Your task to perform on an android device: toggle translation in the chrome app Image 0: 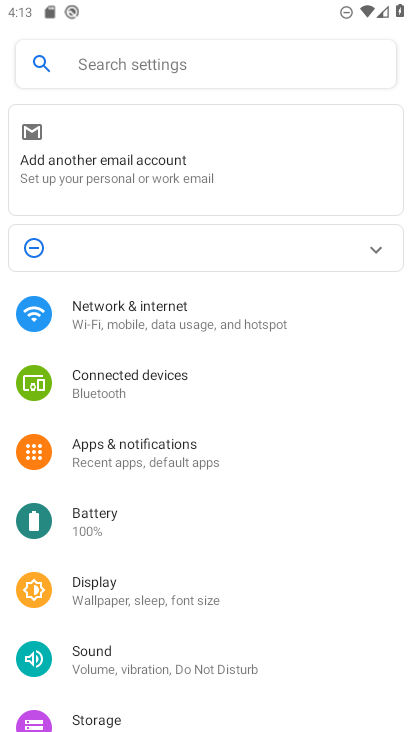
Step 0: press home button
Your task to perform on an android device: toggle translation in the chrome app Image 1: 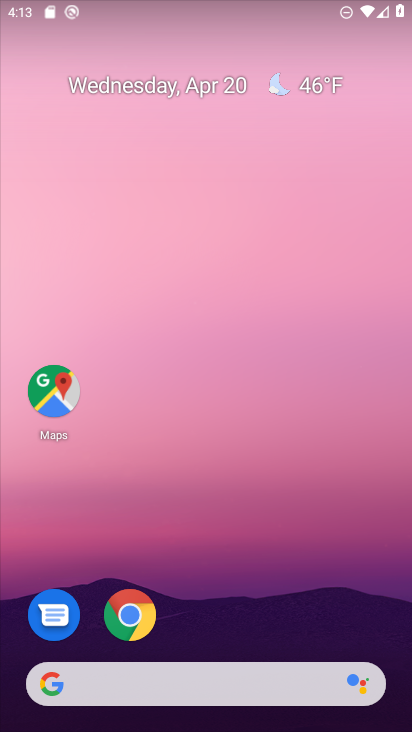
Step 1: drag from (315, 554) to (294, 102)
Your task to perform on an android device: toggle translation in the chrome app Image 2: 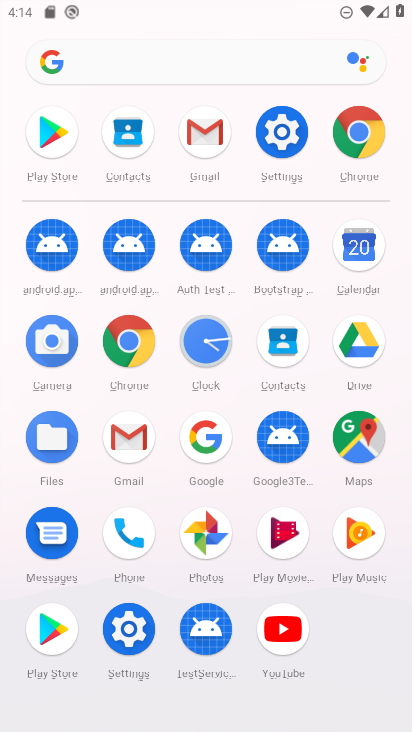
Step 2: click (353, 145)
Your task to perform on an android device: toggle translation in the chrome app Image 3: 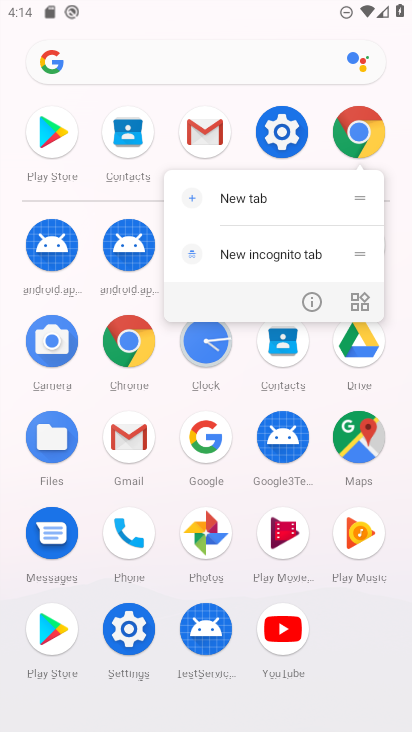
Step 3: click (353, 145)
Your task to perform on an android device: toggle translation in the chrome app Image 4: 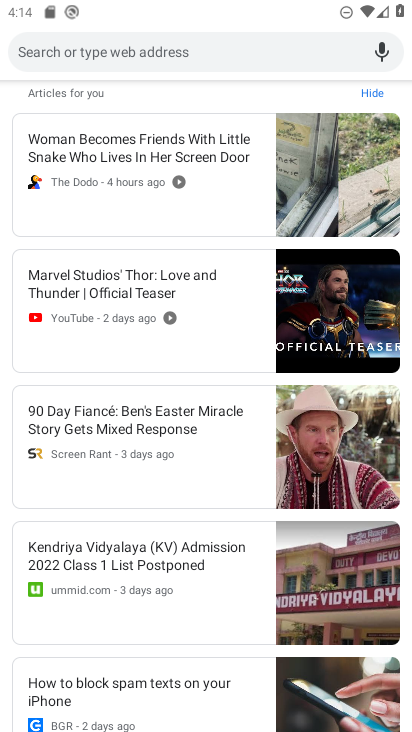
Step 4: drag from (190, 164) to (209, 590)
Your task to perform on an android device: toggle translation in the chrome app Image 5: 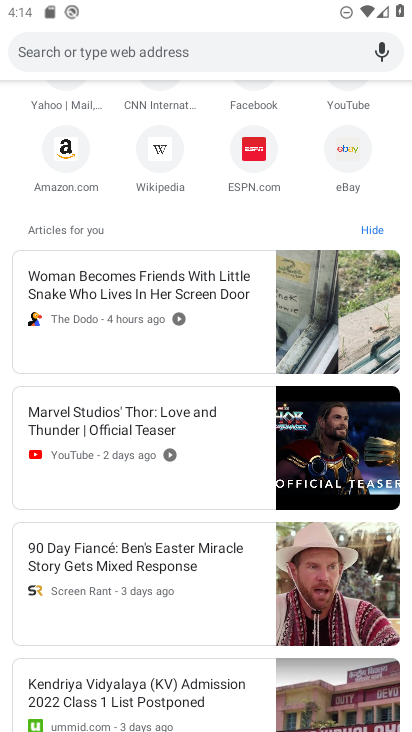
Step 5: drag from (207, 289) to (222, 635)
Your task to perform on an android device: toggle translation in the chrome app Image 6: 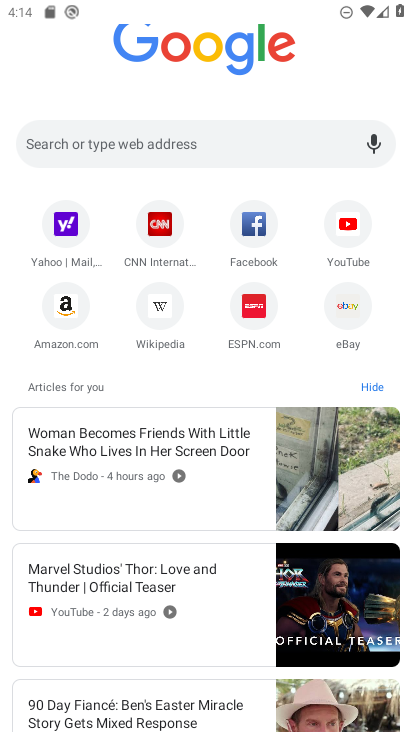
Step 6: drag from (330, 193) to (319, 657)
Your task to perform on an android device: toggle translation in the chrome app Image 7: 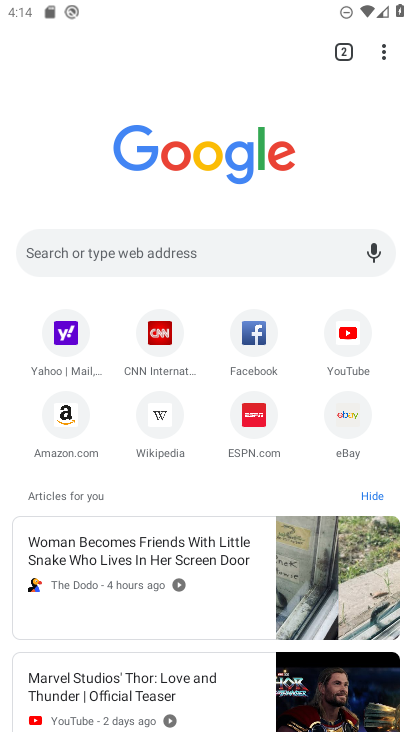
Step 7: click (378, 48)
Your task to perform on an android device: toggle translation in the chrome app Image 8: 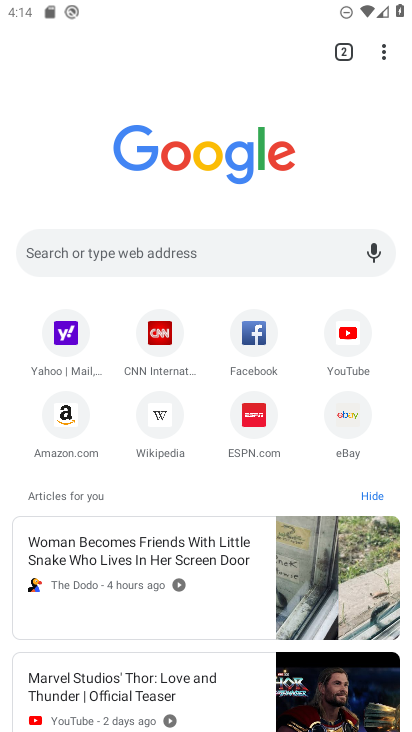
Step 8: drag from (378, 48) to (249, 479)
Your task to perform on an android device: toggle translation in the chrome app Image 9: 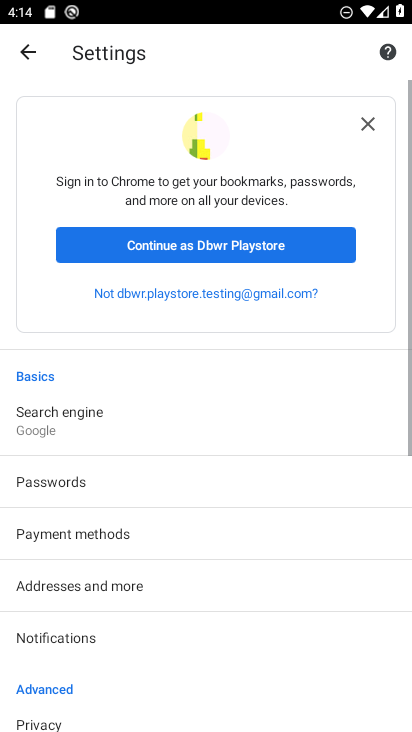
Step 9: drag from (247, 658) to (318, 281)
Your task to perform on an android device: toggle translation in the chrome app Image 10: 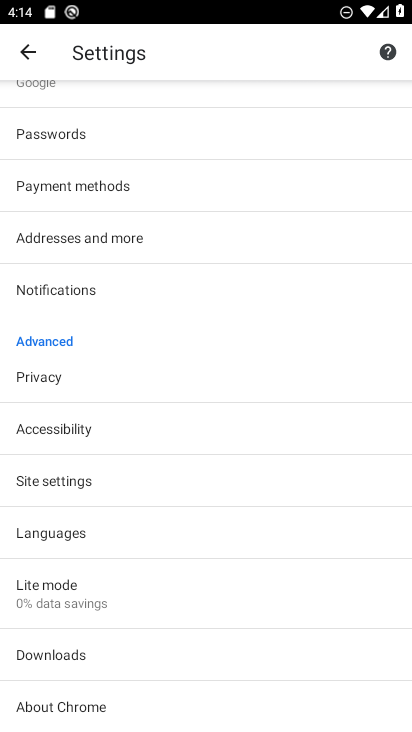
Step 10: click (28, 525)
Your task to perform on an android device: toggle translation in the chrome app Image 11: 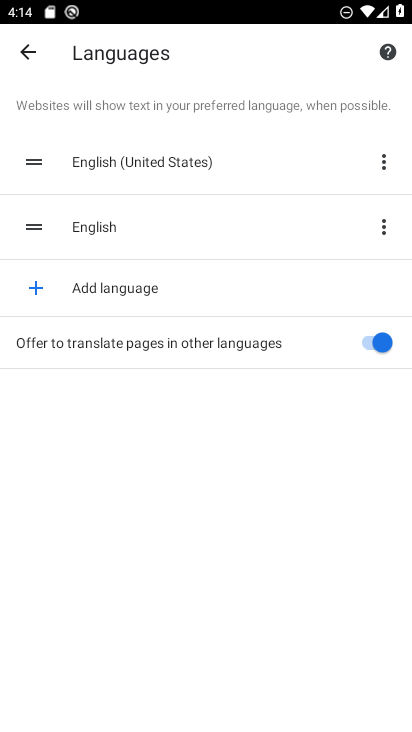
Step 11: click (371, 341)
Your task to perform on an android device: toggle translation in the chrome app Image 12: 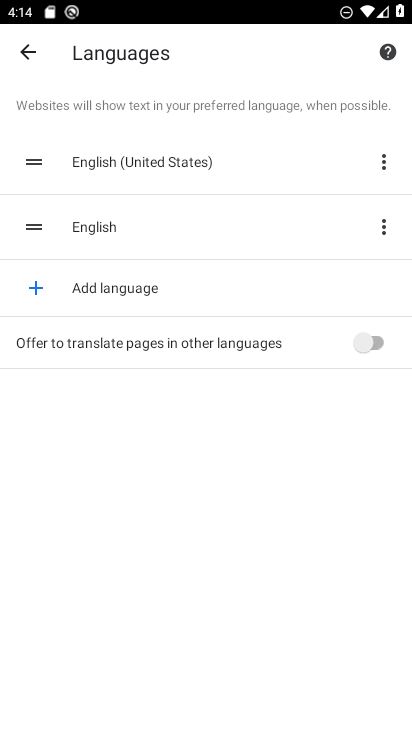
Step 12: task complete